Your task to perform on an android device: open app "Speedtest by Ookla" Image 0: 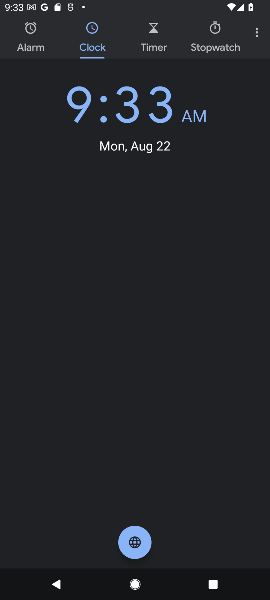
Step 0: press home button
Your task to perform on an android device: open app "Speedtest by Ookla" Image 1: 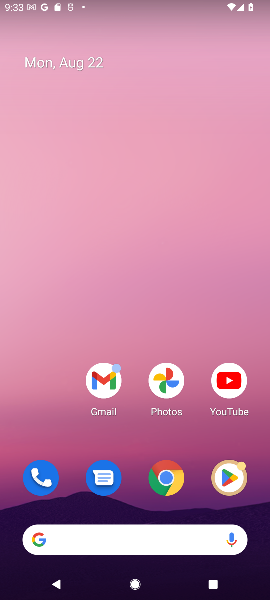
Step 1: click (227, 486)
Your task to perform on an android device: open app "Speedtest by Ookla" Image 2: 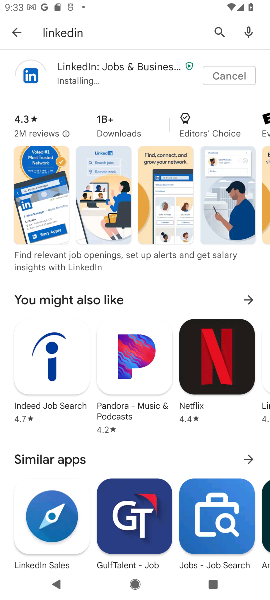
Step 2: click (212, 29)
Your task to perform on an android device: open app "Speedtest by Ookla" Image 3: 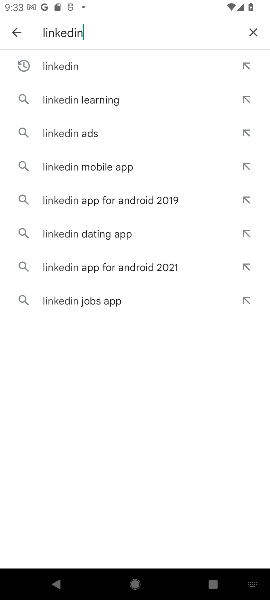
Step 3: click (256, 37)
Your task to perform on an android device: open app "Speedtest by Ookla" Image 4: 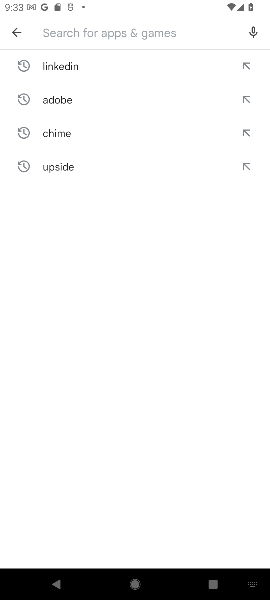
Step 4: type "speedtest ookla"
Your task to perform on an android device: open app "Speedtest by Ookla" Image 5: 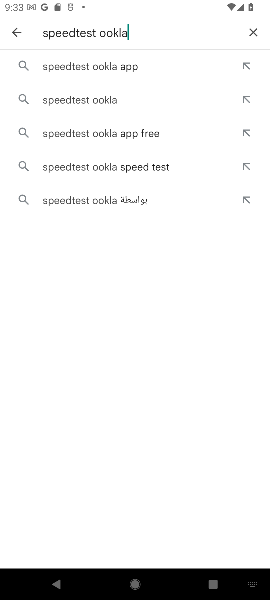
Step 5: click (110, 73)
Your task to perform on an android device: open app "Speedtest by Ookla" Image 6: 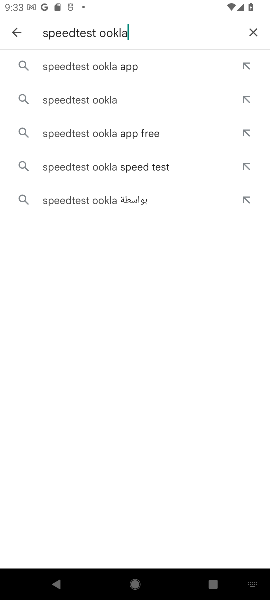
Step 6: click (110, 73)
Your task to perform on an android device: open app "Speedtest by Ookla" Image 7: 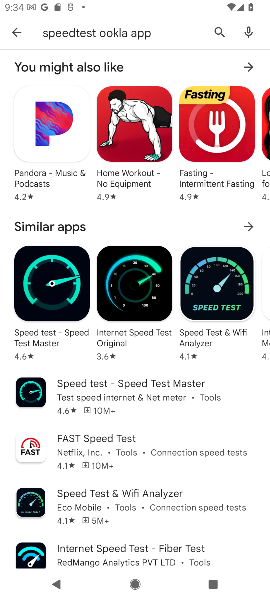
Step 7: task complete